Your task to perform on an android device: change the clock display to analog Image 0: 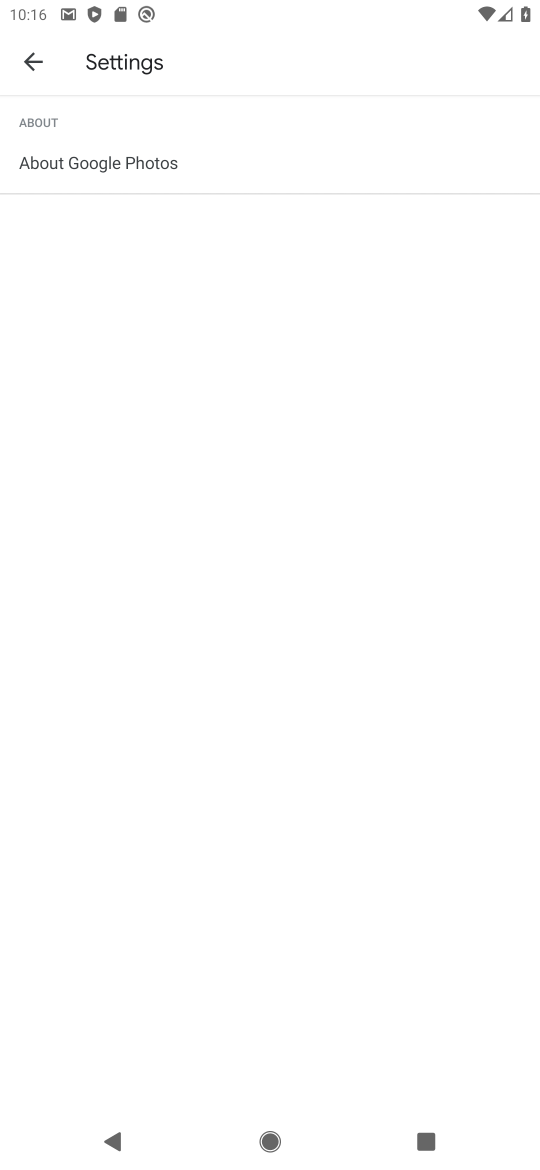
Step 0: press home button
Your task to perform on an android device: change the clock display to analog Image 1: 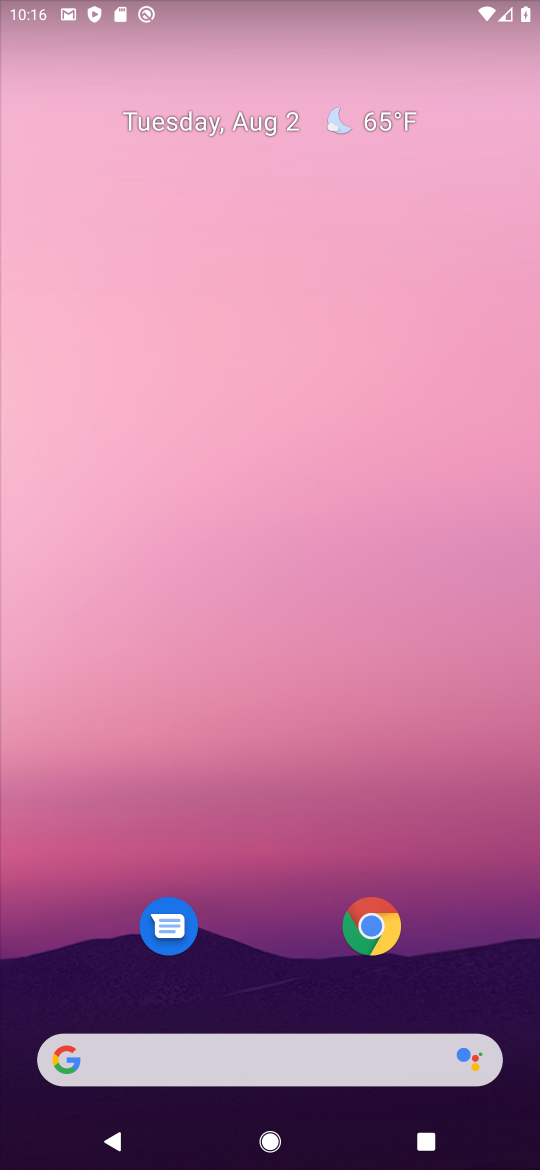
Step 1: drag from (510, 991) to (429, 225)
Your task to perform on an android device: change the clock display to analog Image 2: 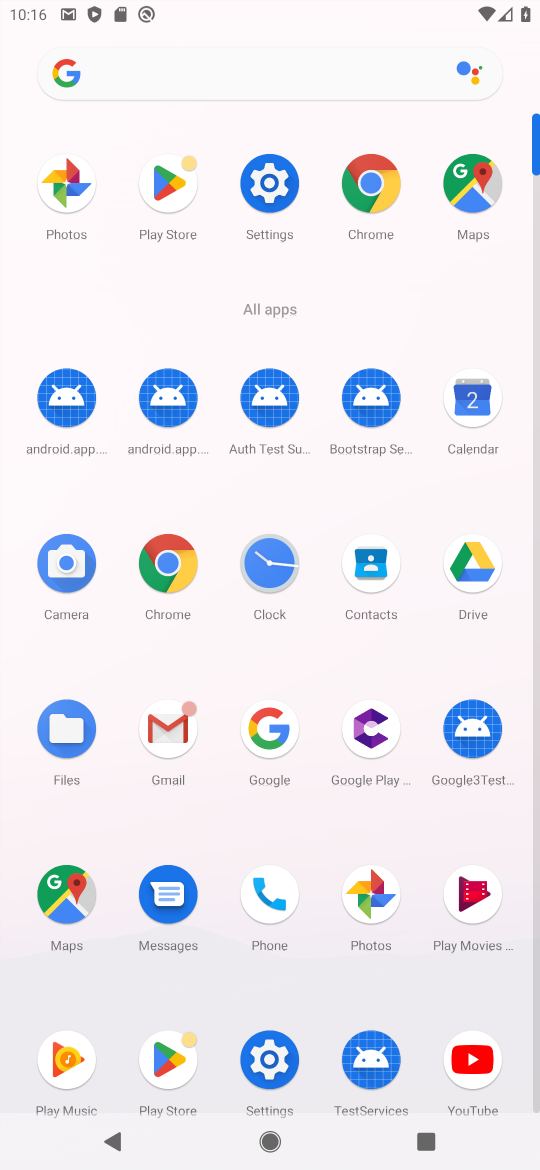
Step 2: click (274, 580)
Your task to perform on an android device: change the clock display to analog Image 3: 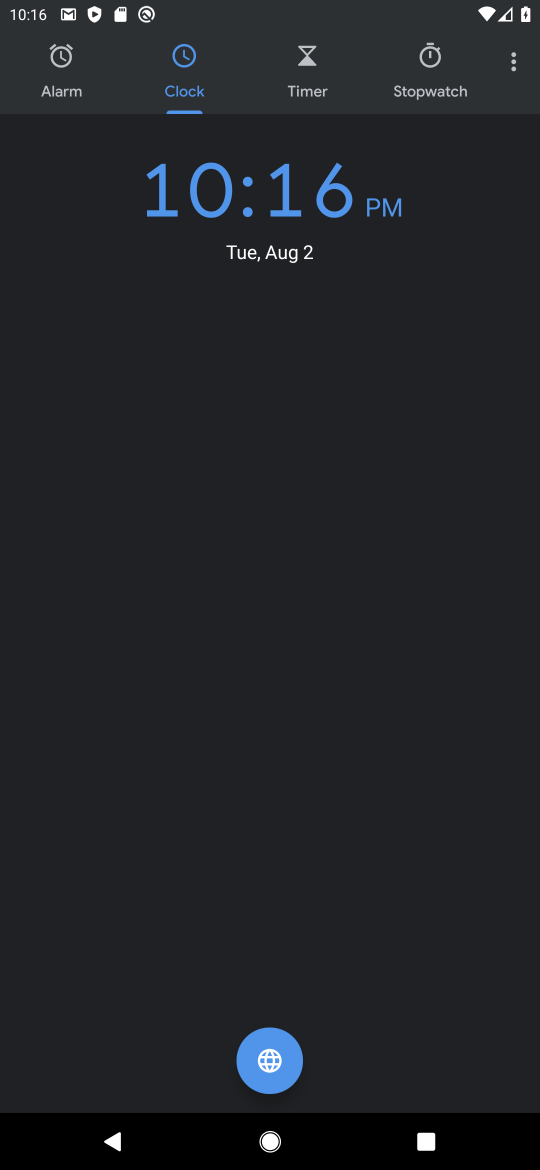
Step 3: click (524, 89)
Your task to perform on an android device: change the clock display to analog Image 4: 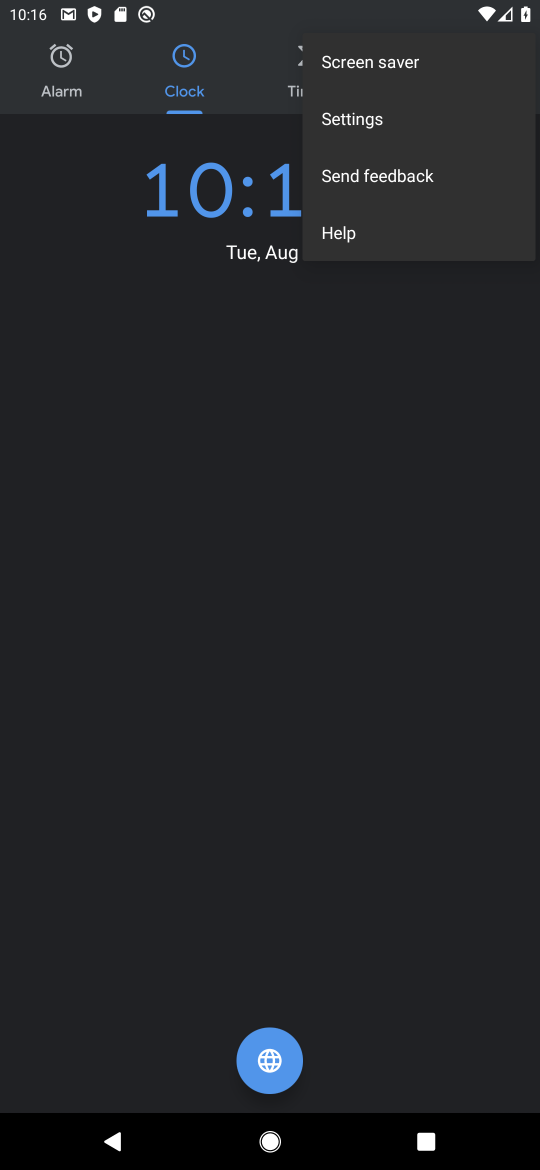
Step 4: click (423, 124)
Your task to perform on an android device: change the clock display to analog Image 5: 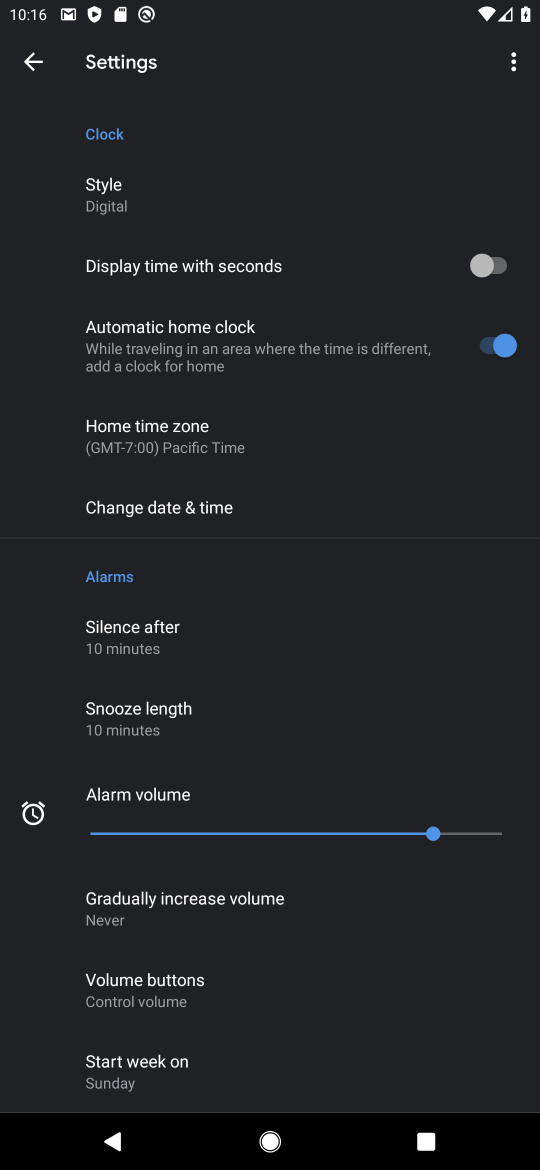
Step 5: click (137, 206)
Your task to perform on an android device: change the clock display to analog Image 6: 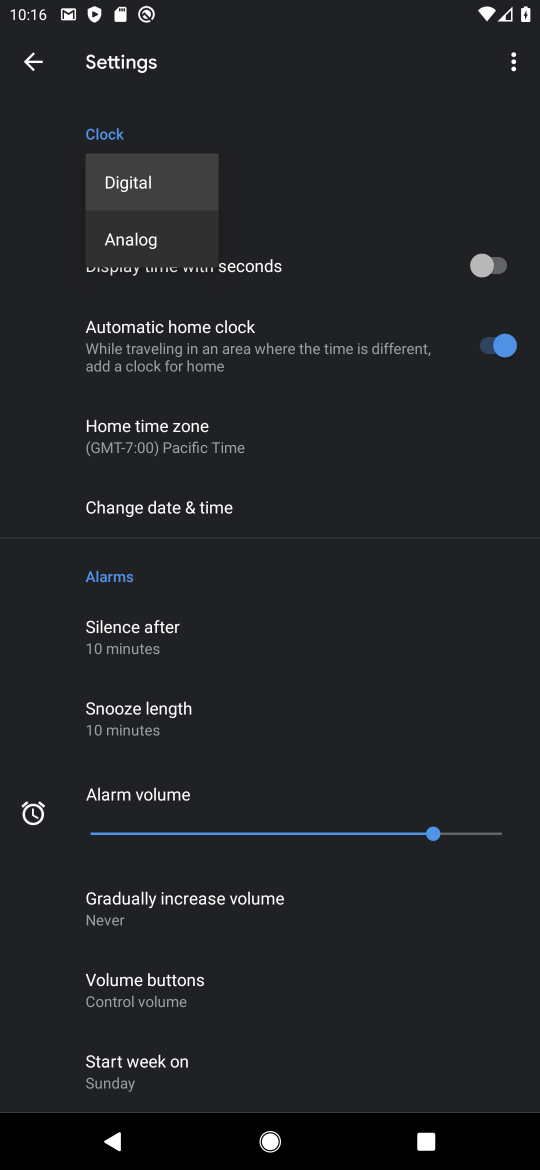
Step 6: click (139, 246)
Your task to perform on an android device: change the clock display to analog Image 7: 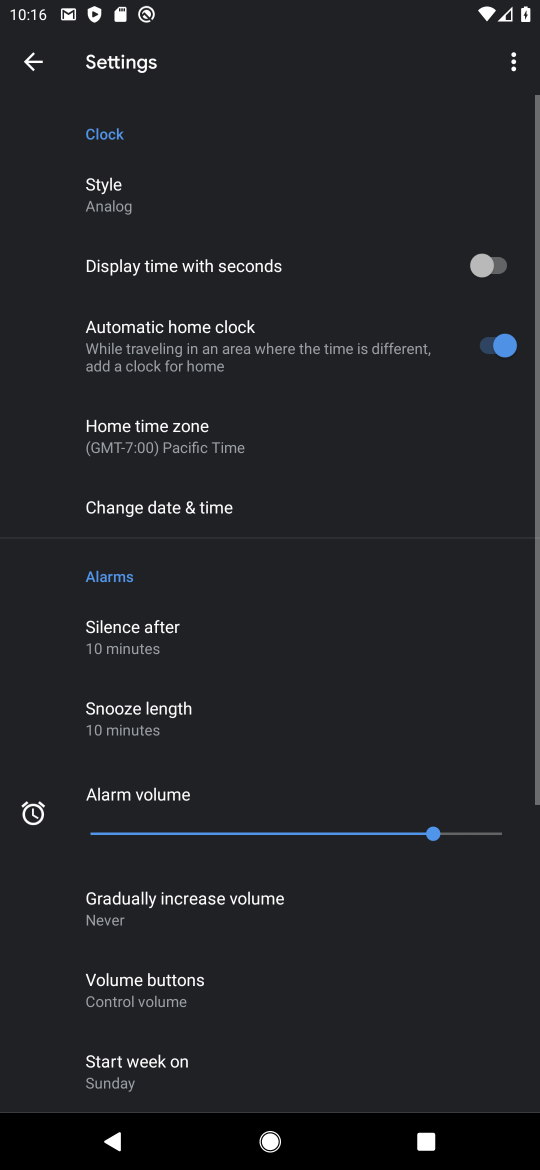
Step 7: task complete